Your task to perform on an android device: search for starred emails in the gmail app Image 0: 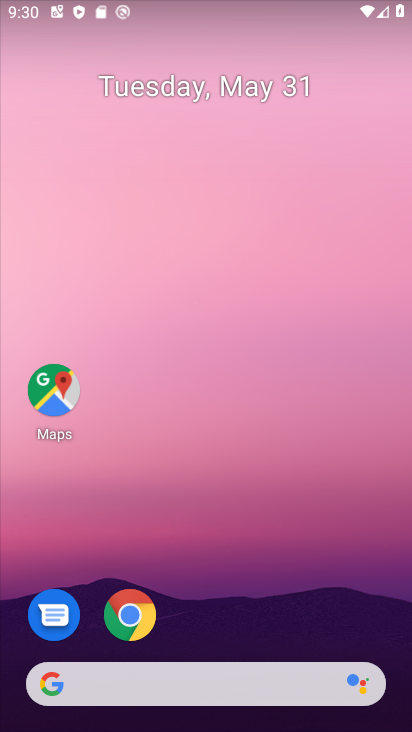
Step 0: drag from (409, 641) to (294, 45)
Your task to perform on an android device: search for starred emails in the gmail app Image 1: 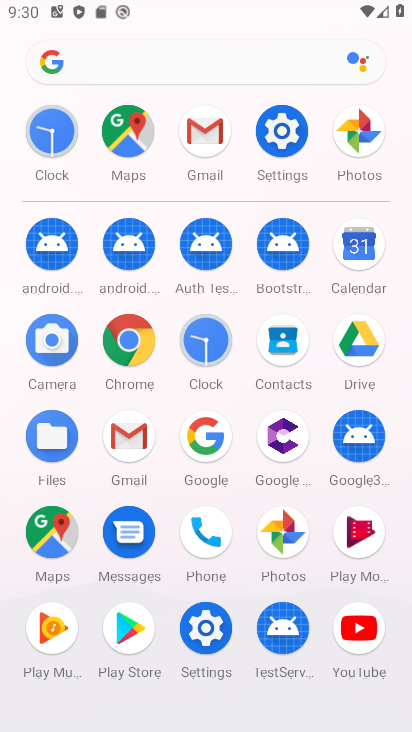
Step 1: click (131, 437)
Your task to perform on an android device: search for starred emails in the gmail app Image 2: 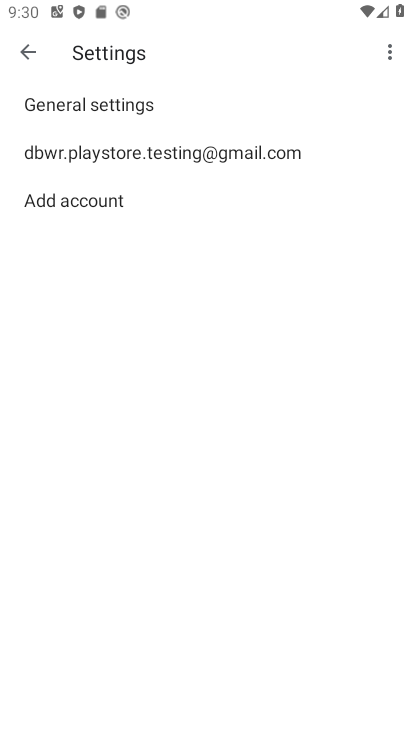
Step 2: press back button
Your task to perform on an android device: search for starred emails in the gmail app Image 3: 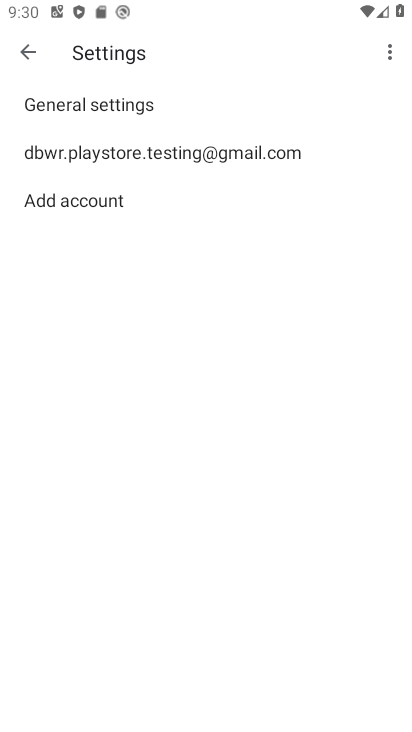
Step 3: press back button
Your task to perform on an android device: search for starred emails in the gmail app Image 4: 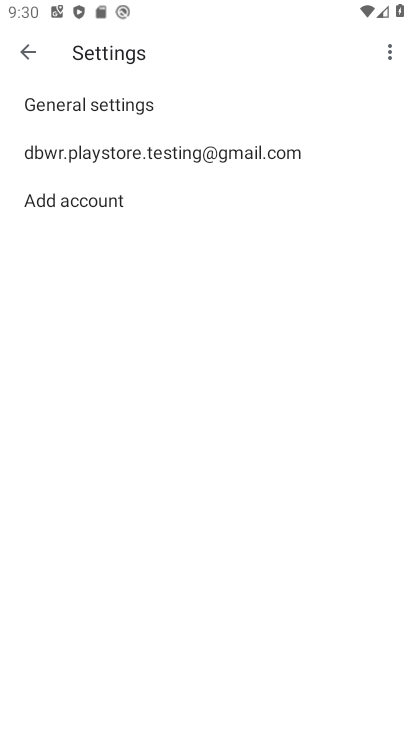
Step 4: press back button
Your task to perform on an android device: search for starred emails in the gmail app Image 5: 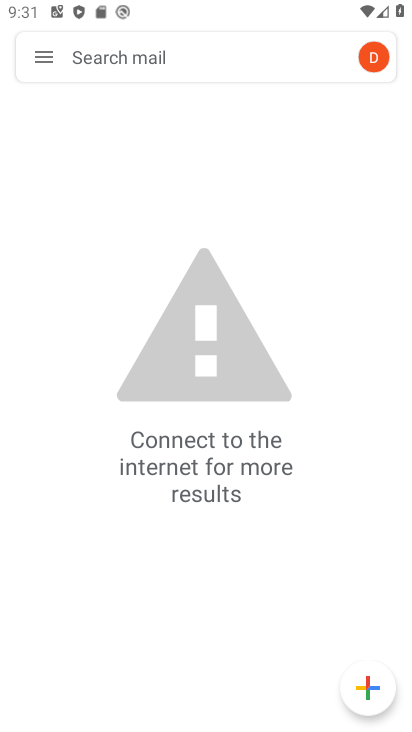
Step 5: click (43, 59)
Your task to perform on an android device: search for starred emails in the gmail app Image 6: 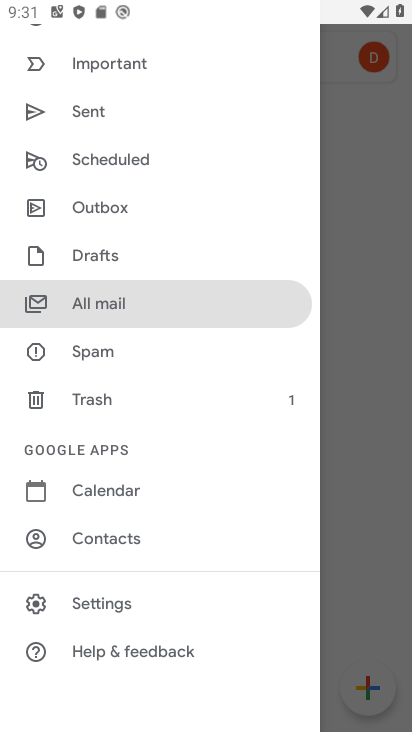
Step 6: drag from (176, 215) to (181, 515)
Your task to perform on an android device: search for starred emails in the gmail app Image 7: 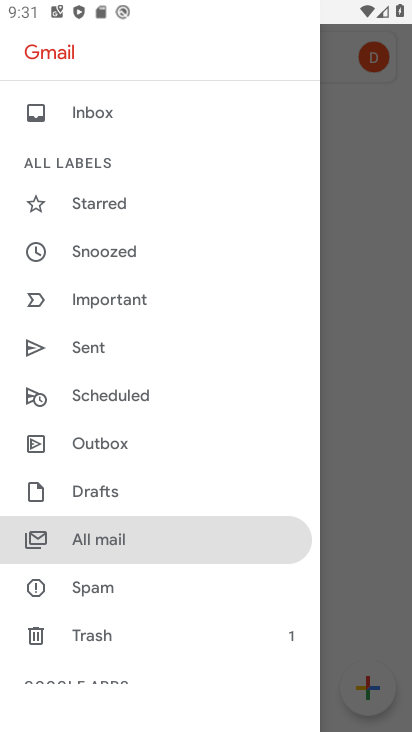
Step 7: click (100, 199)
Your task to perform on an android device: search for starred emails in the gmail app Image 8: 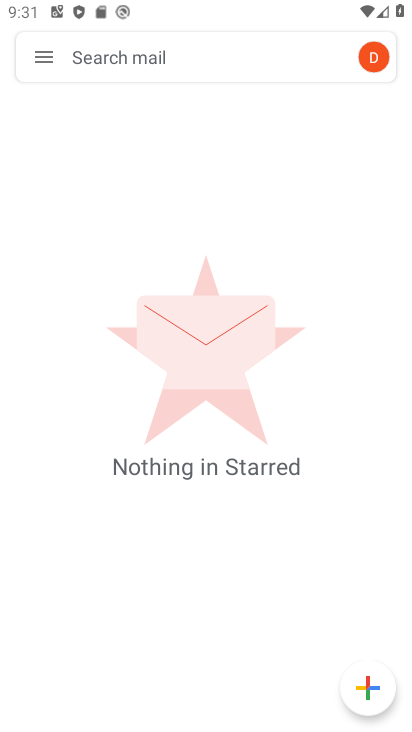
Step 8: task complete